Your task to perform on an android device: Go to Yahoo.com Image 0: 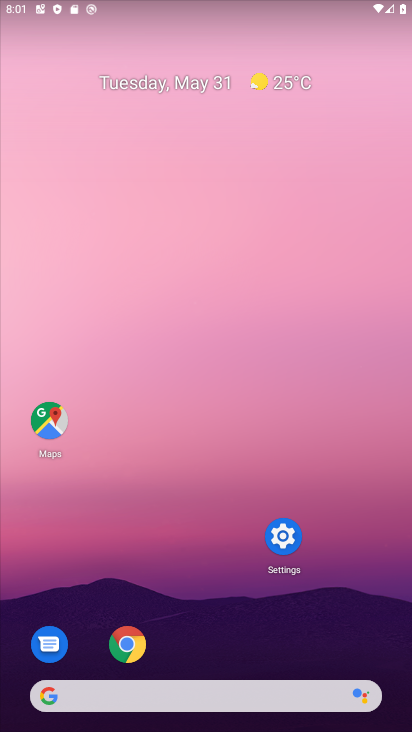
Step 0: press home button
Your task to perform on an android device: Go to Yahoo.com Image 1: 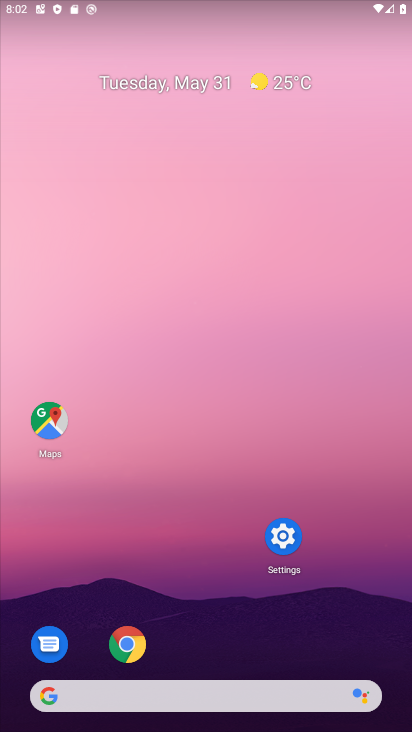
Step 1: drag from (246, 718) to (262, 0)
Your task to perform on an android device: Go to Yahoo.com Image 2: 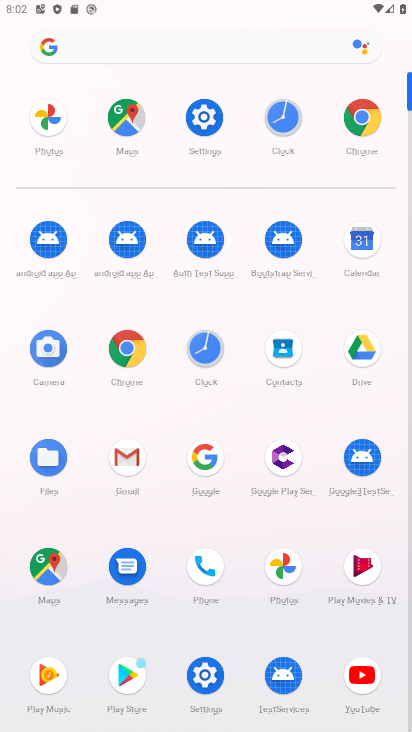
Step 2: click (357, 131)
Your task to perform on an android device: Go to Yahoo.com Image 3: 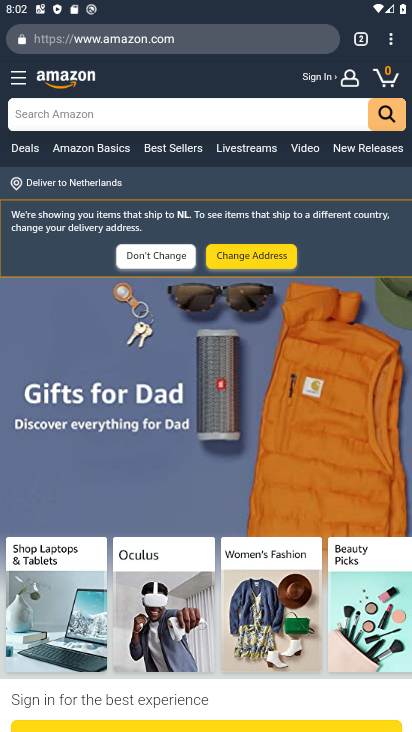
Step 3: click (393, 36)
Your task to perform on an android device: Go to Yahoo.com Image 4: 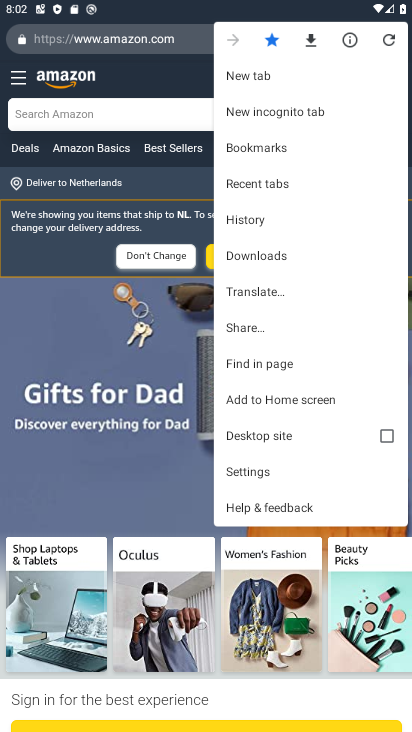
Step 4: click (265, 76)
Your task to perform on an android device: Go to Yahoo.com Image 5: 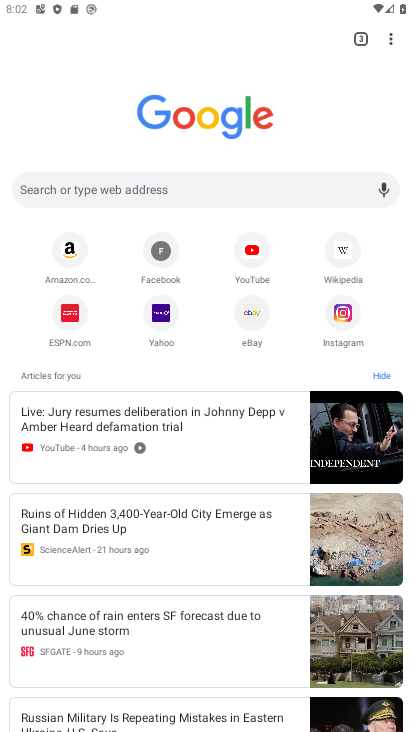
Step 5: click (161, 307)
Your task to perform on an android device: Go to Yahoo.com Image 6: 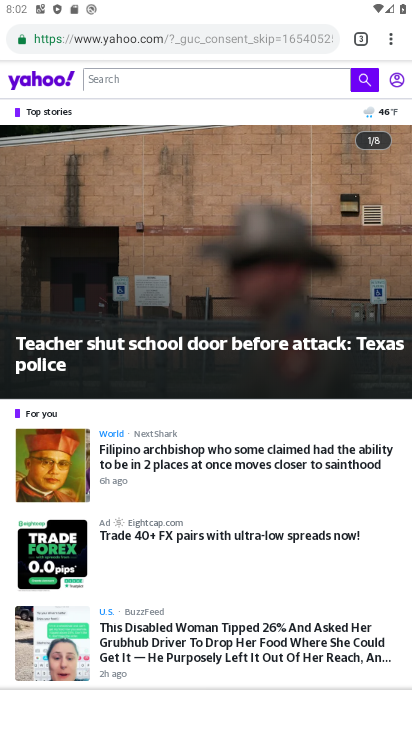
Step 6: task complete